Your task to perform on an android device: Search for 35 best books of all time Image 0: 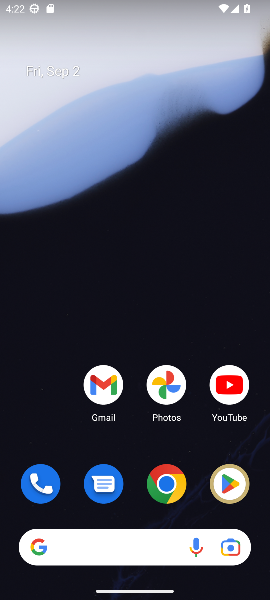
Step 0: click (174, 484)
Your task to perform on an android device: Search for 35 best books of all time Image 1: 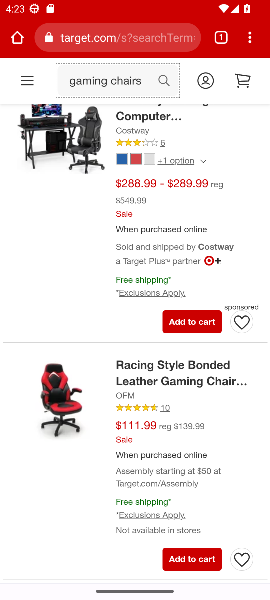
Step 1: drag from (243, 35) to (162, 74)
Your task to perform on an android device: Search for 35 best books of all time Image 2: 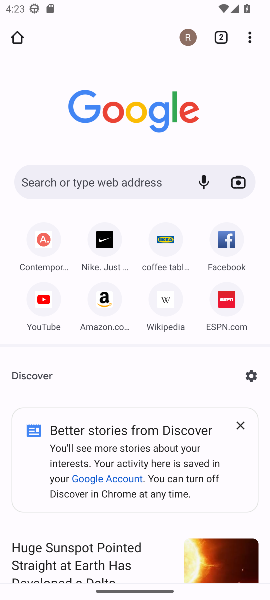
Step 2: click (101, 172)
Your task to perform on an android device: Search for 35 best books of all time Image 3: 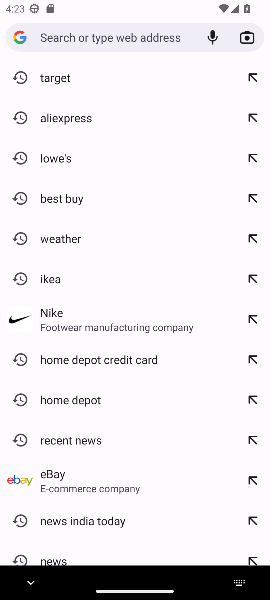
Step 3: type "35 best books of all time"
Your task to perform on an android device: Search for 35 best books of all time Image 4: 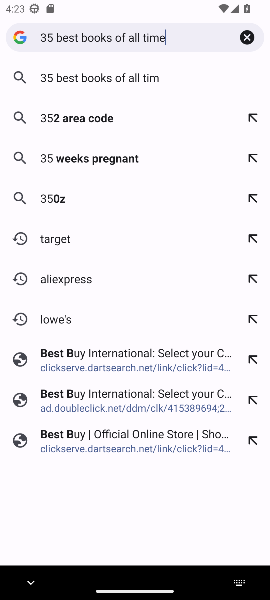
Step 4: press enter
Your task to perform on an android device: Search for 35 best books of all time Image 5: 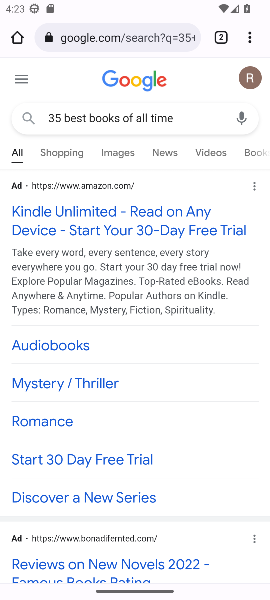
Step 5: drag from (105, 390) to (172, 225)
Your task to perform on an android device: Search for 35 best books of all time Image 6: 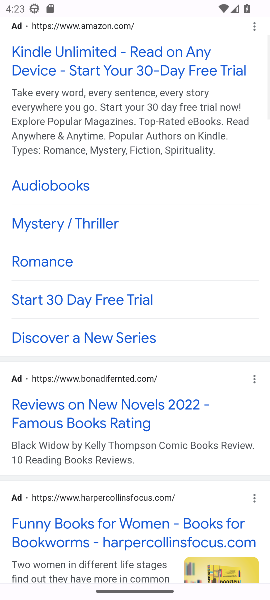
Step 6: drag from (106, 523) to (200, 183)
Your task to perform on an android device: Search for 35 best books of all time Image 7: 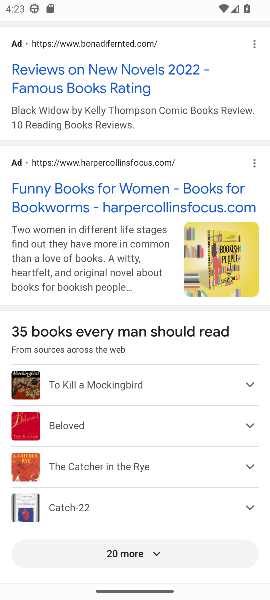
Step 7: drag from (149, 386) to (204, 215)
Your task to perform on an android device: Search for 35 best books of all time Image 8: 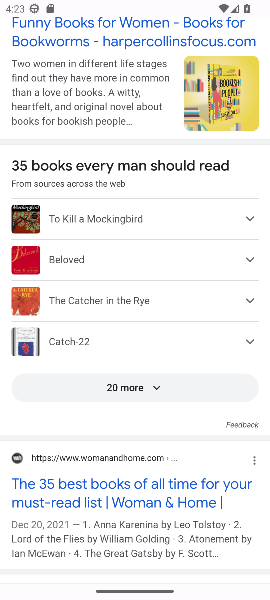
Step 8: click (118, 478)
Your task to perform on an android device: Search for 35 best books of all time Image 9: 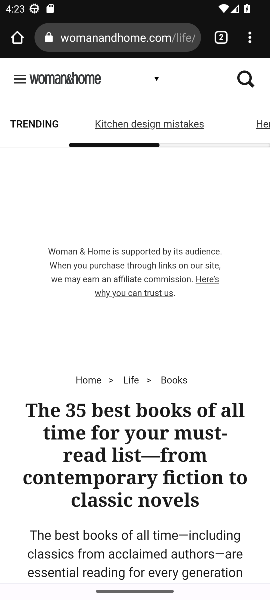
Step 9: drag from (100, 524) to (204, 133)
Your task to perform on an android device: Search for 35 best books of all time Image 10: 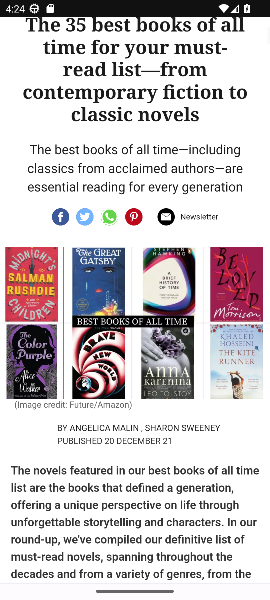
Step 10: drag from (141, 473) to (205, 153)
Your task to perform on an android device: Search for 35 best books of all time Image 11: 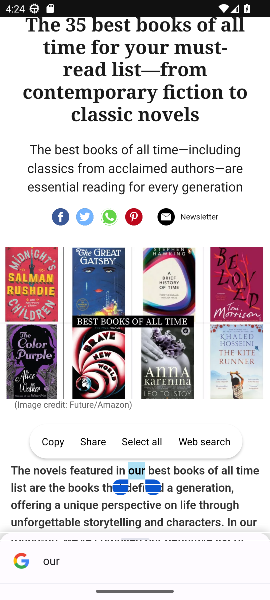
Step 11: click (12, 435)
Your task to perform on an android device: Search for 35 best books of all time Image 12: 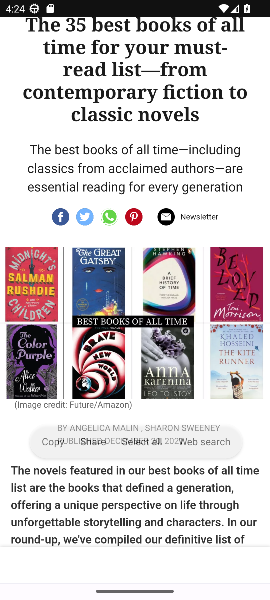
Step 12: task complete